Your task to perform on an android device: Open calendar and show me the fourth week of next month Image 0: 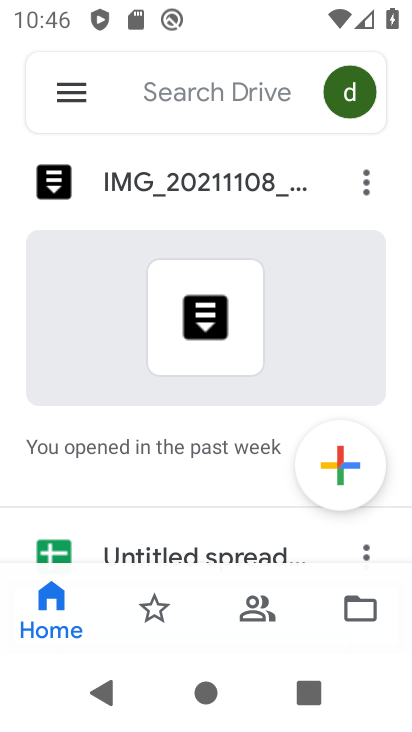
Step 0: press home button
Your task to perform on an android device: Open calendar and show me the fourth week of next month Image 1: 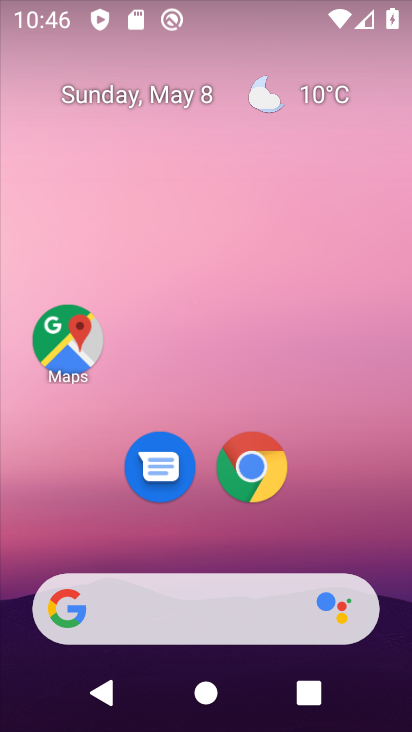
Step 1: drag from (341, 524) to (329, 160)
Your task to perform on an android device: Open calendar and show me the fourth week of next month Image 2: 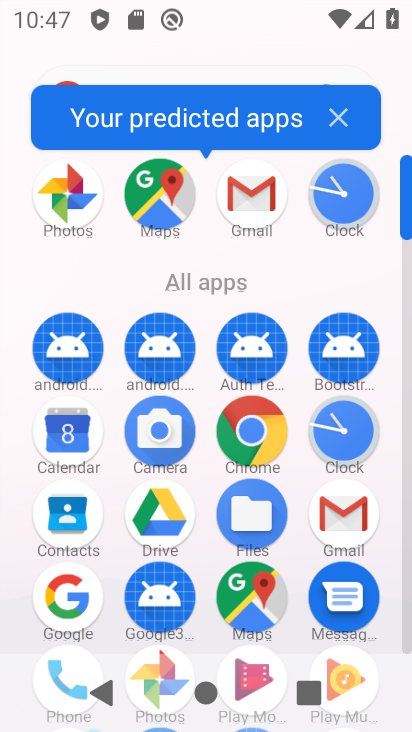
Step 2: click (78, 431)
Your task to perform on an android device: Open calendar and show me the fourth week of next month Image 3: 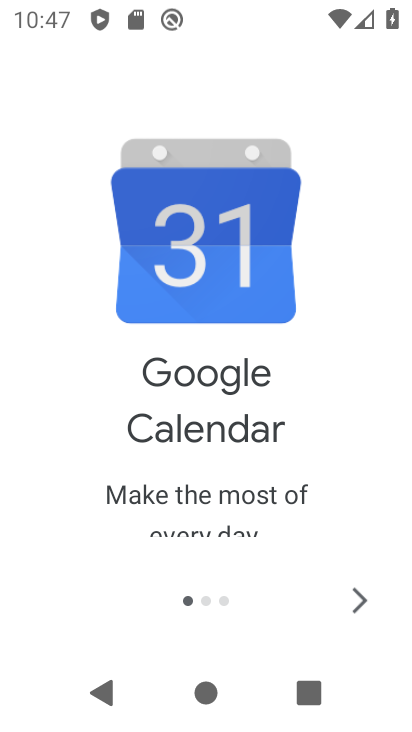
Step 3: click (359, 601)
Your task to perform on an android device: Open calendar and show me the fourth week of next month Image 4: 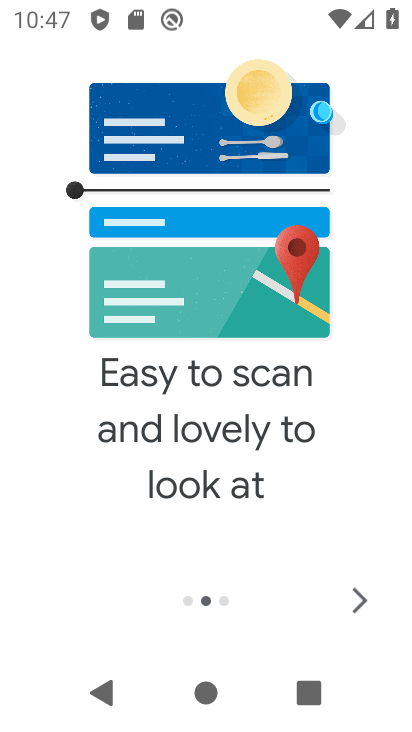
Step 4: click (359, 601)
Your task to perform on an android device: Open calendar and show me the fourth week of next month Image 5: 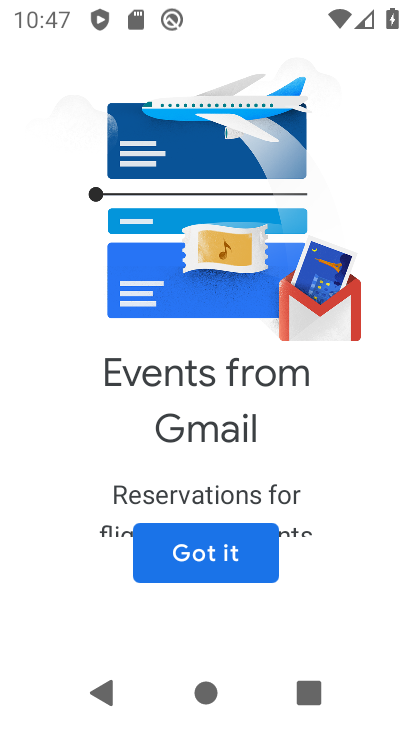
Step 5: click (243, 557)
Your task to perform on an android device: Open calendar and show me the fourth week of next month Image 6: 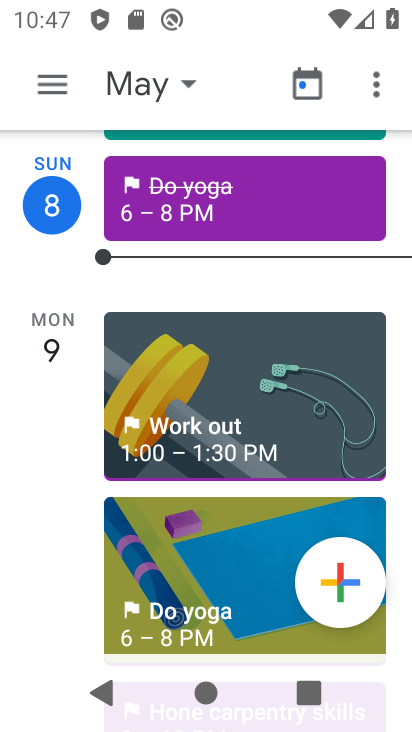
Step 6: click (46, 89)
Your task to perform on an android device: Open calendar and show me the fourth week of next month Image 7: 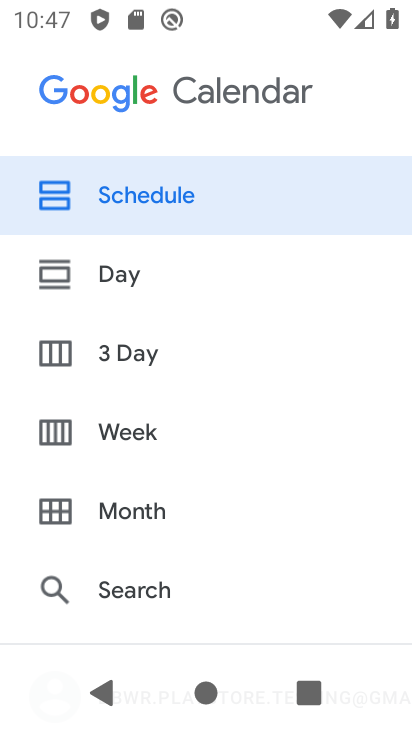
Step 7: click (139, 429)
Your task to perform on an android device: Open calendar and show me the fourth week of next month Image 8: 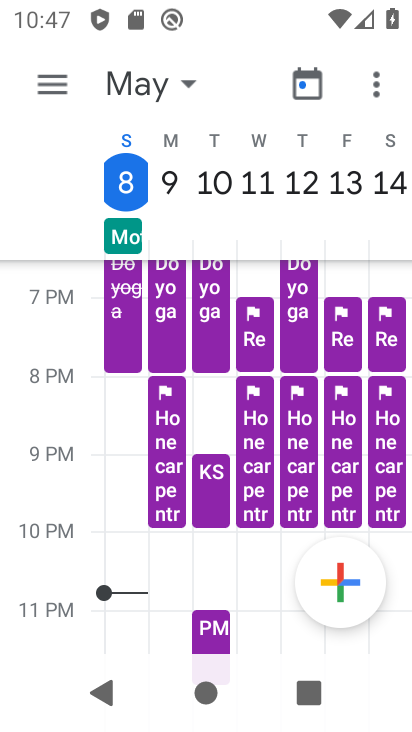
Step 8: click (163, 86)
Your task to perform on an android device: Open calendar and show me the fourth week of next month Image 9: 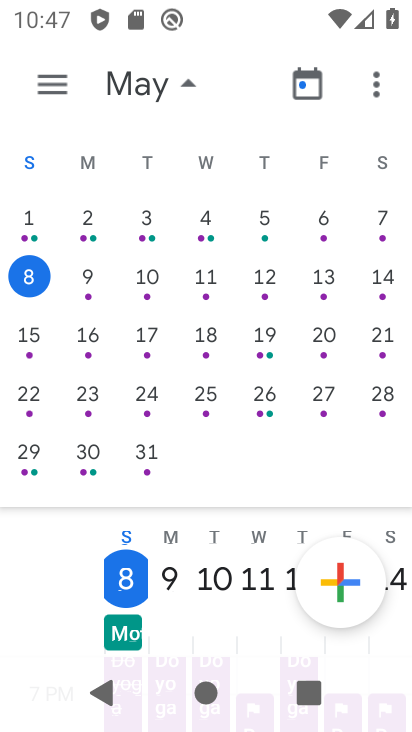
Step 9: drag from (391, 364) to (28, 344)
Your task to perform on an android device: Open calendar and show me the fourth week of next month Image 10: 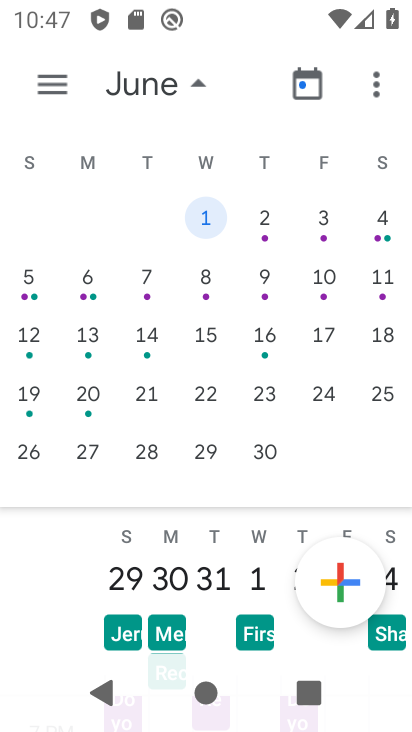
Step 10: click (208, 402)
Your task to perform on an android device: Open calendar and show me the fourth week of next month Image 11: 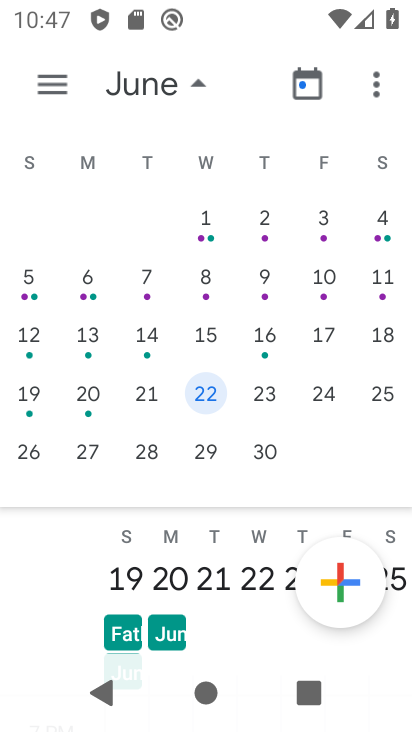
Step 11: task complete